Your task to perform on an android device: open the mobile data screen to see how much data has been used Image 0: 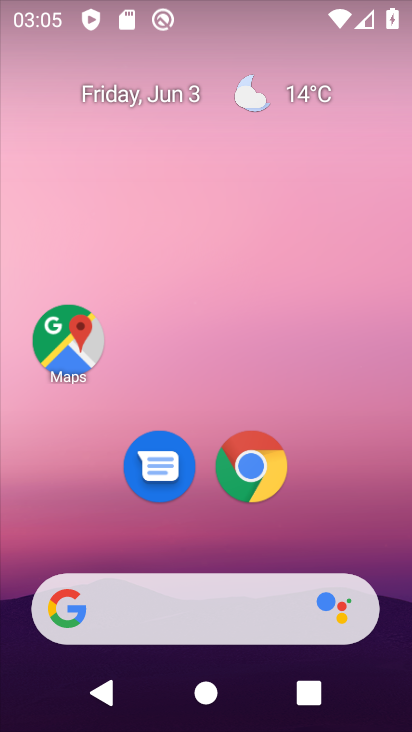
Step 0: press home button
Your task to perform on an android device: open the mobile data screen to see how much data has been used Image 1: 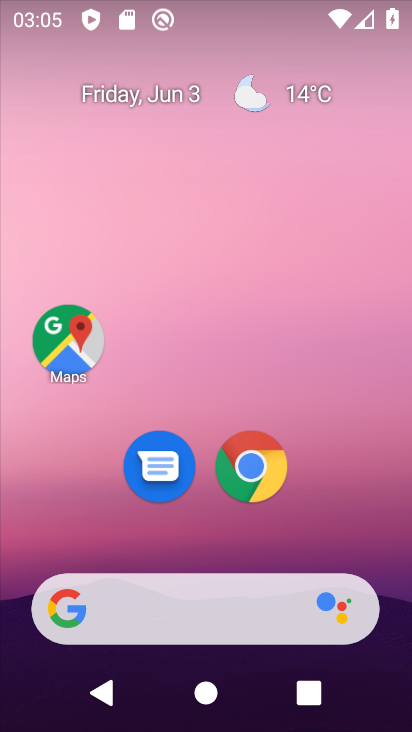
Step 1: drag from (212, 545) to (272, 12)
Your task to perform on an android device: open the mobile data screen to see how much data has been used Image 2: 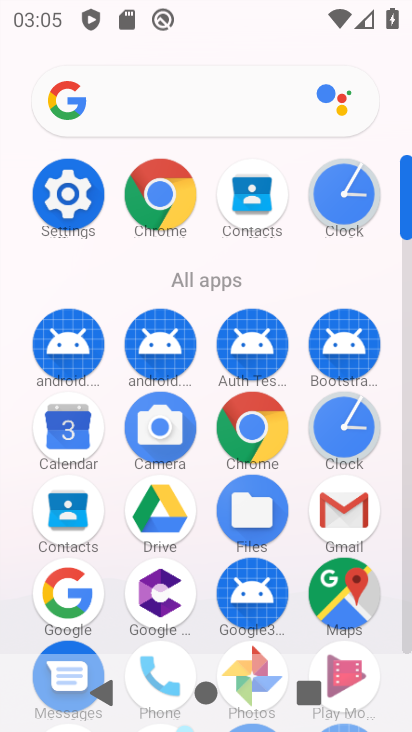
Step 2: click (65, 189)
Your task to perform on an android device: open the mobile data screen to see how much data has been used Image 3: 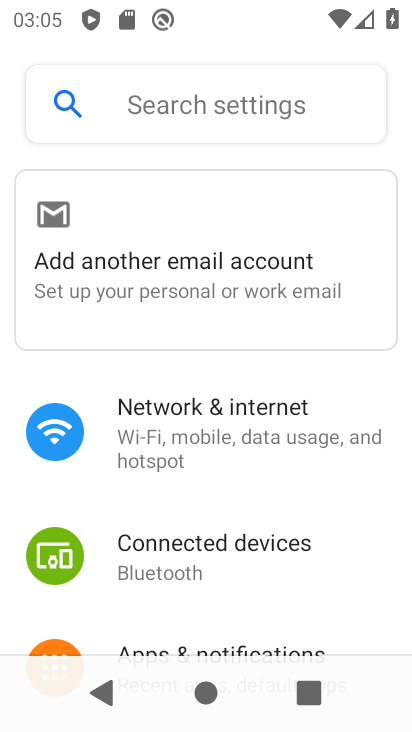
Step 3: click (230, 425)
Your task to perform on an android device: open the mobile data screen to see how much data has been used Image 4: 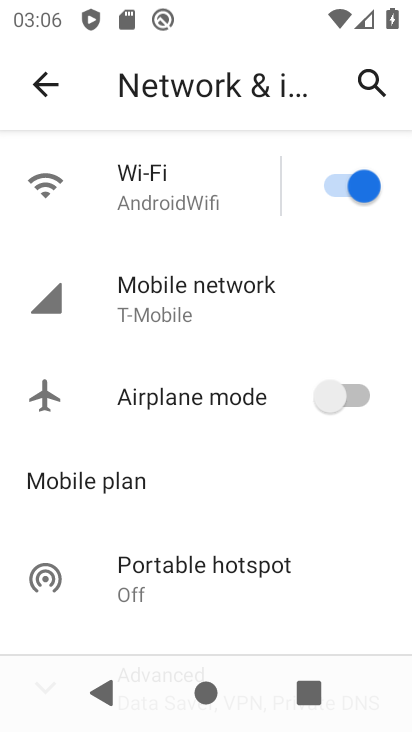
Step 4: click (198, 292)
Your task to perform on an android device: open the mobile data screen to see how much data has been used Image 5: 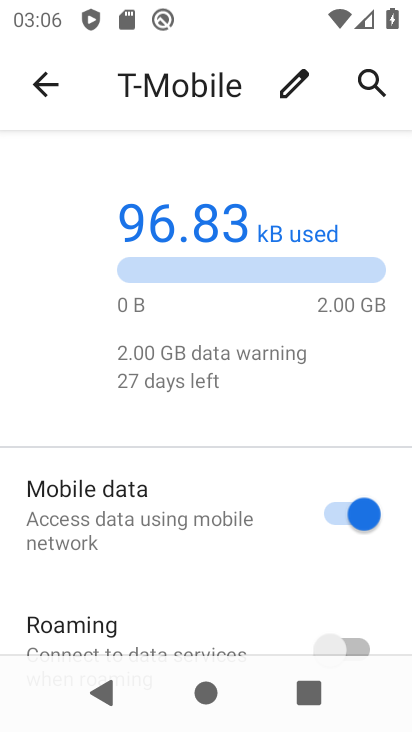
Step 5: drag from (207, 580) to (242, 294)
Your task to perform on an android device: open the mobile data screen to see how much data has been used Image 6: 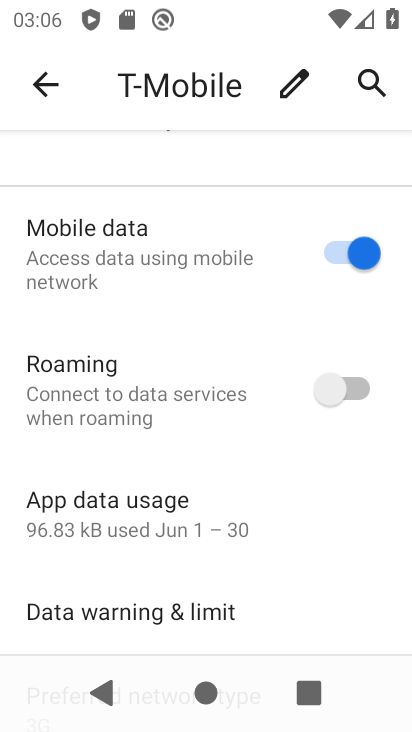
Step 6: click (204, 501)
Your task to perform on an android device: open the mobile data screen to see how much data has been used Image 7: 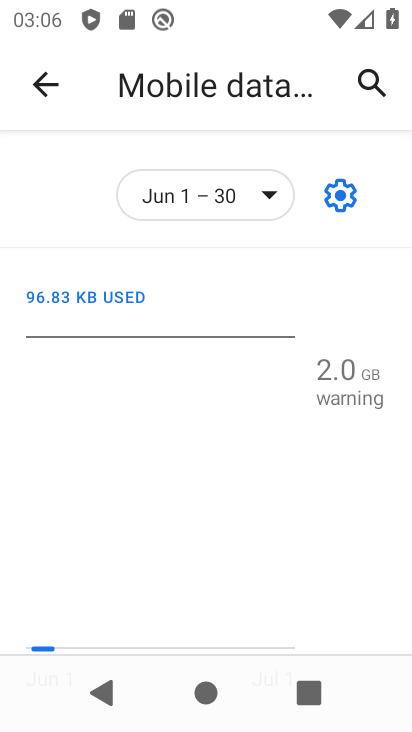
Step 7: task complete